Your task to perform on an android device: turn off location Image 0: 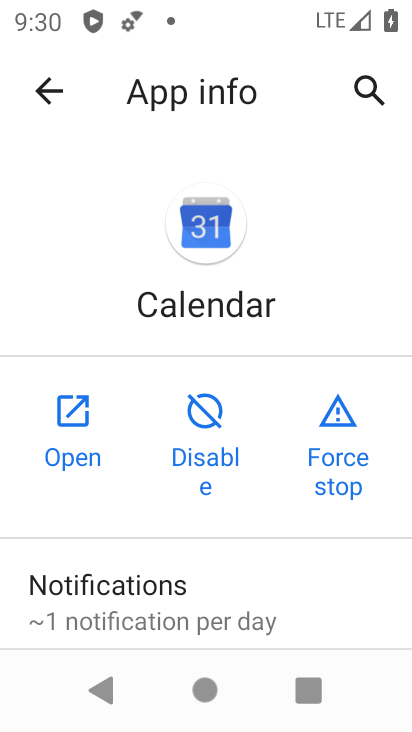
Step 0: click (341, 265)
Your task to perform on an android device: turn off location Image 1: 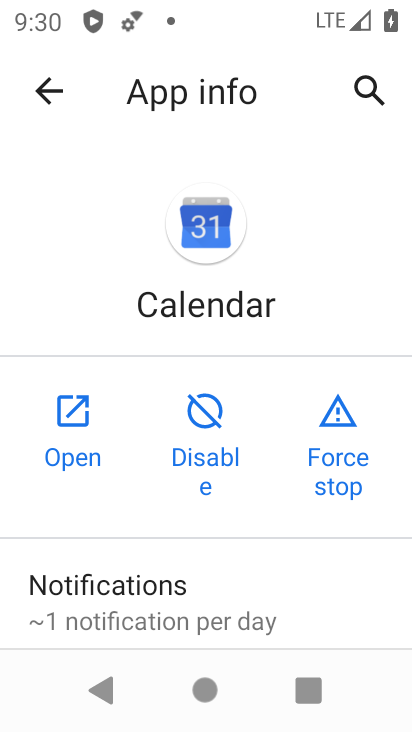
Step 1: press home button
Your task to perform on an android device: turn off location Image 2: 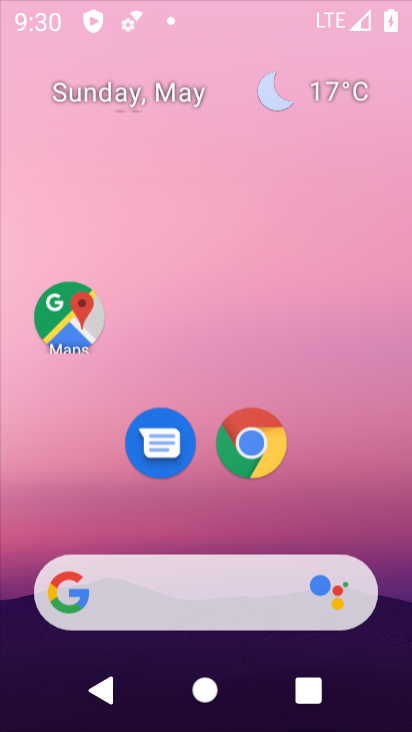
Step 2: drag from (200, 557) to (272, 85)
Your task to perform on an android device: turn off location Image 3: 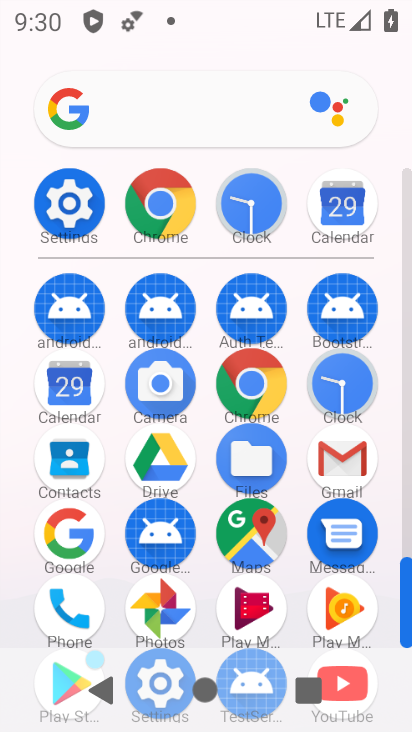
Step 3: click (82, 184)
Your task to perform on an android device: turn off location Image 4: 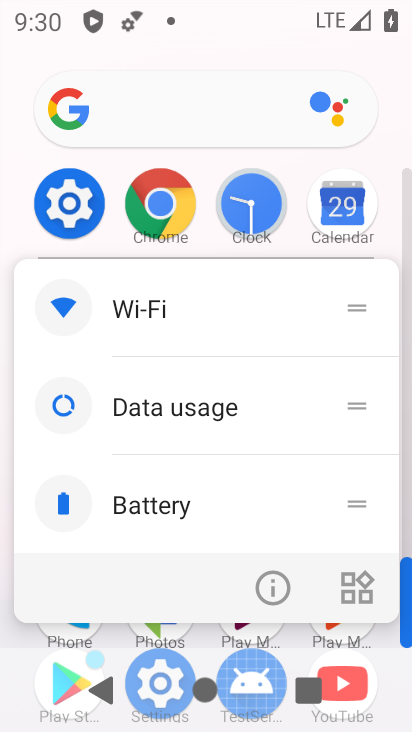
Step 4: click (278, 584)
Your task to perform on an android device: turn off location Image 5: 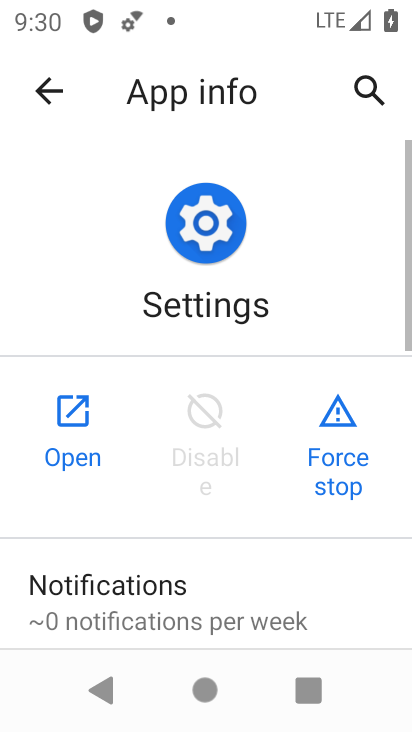
Step 5: click (70, 412)
Your task to perform on an android device: turn off location Image 6: 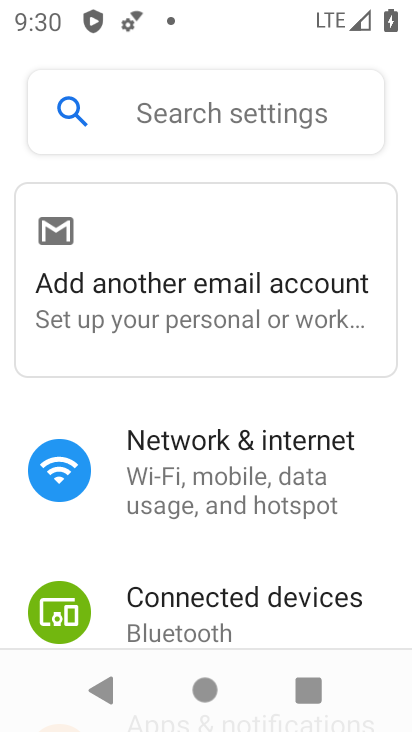
Step 6: drag from (217, 543) to (265, 196)
Your task to perform on an android device: turn off location Image 7: 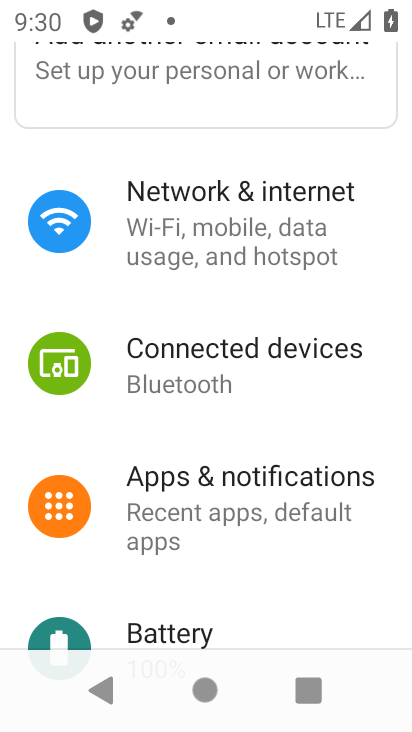
Step 7: drag from (211, 569) to (276, 162)
Your task to perform on an android device: turn off location Image 8: 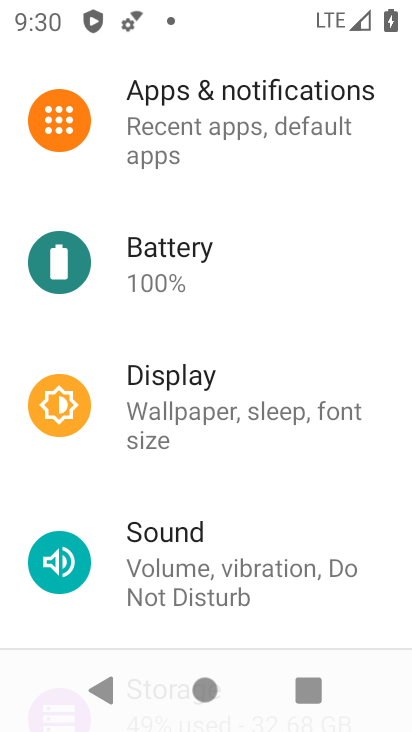
Step 8: drag from (251, 549) to (316, 65)
Your task to perform on an android device: turn off location Image 9: 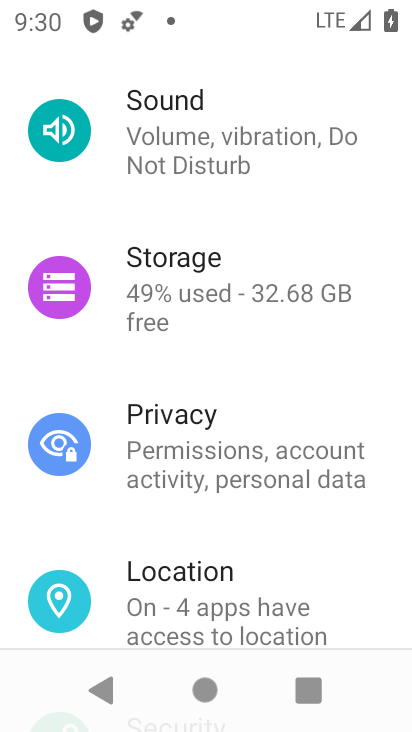
Step 9: click (226, 570)
Your task to perform on an android device: turn off location Image 10: 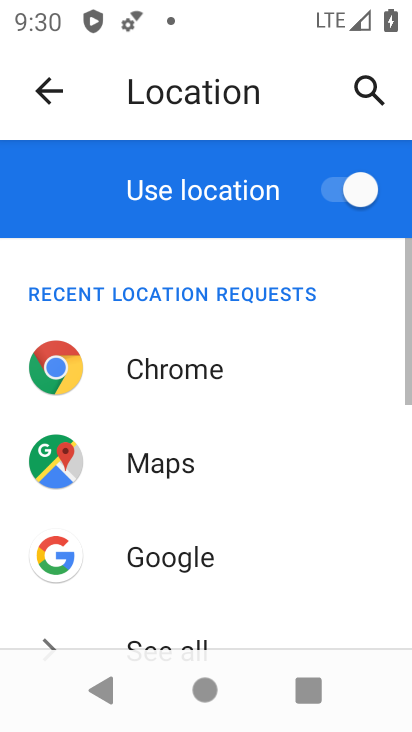
Step 10: drag from (197, 601) to (294, 169)
Your task to perform on an android device: turn off location Image 11: 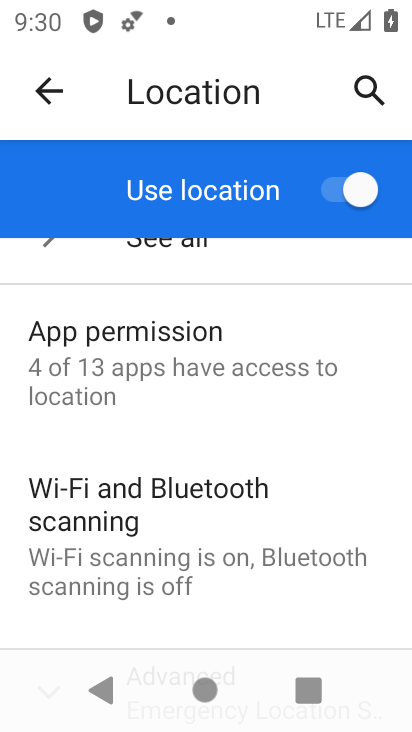
Step 11: click (350, 186)
Your task to perform on an android device: turn off location Image 12: 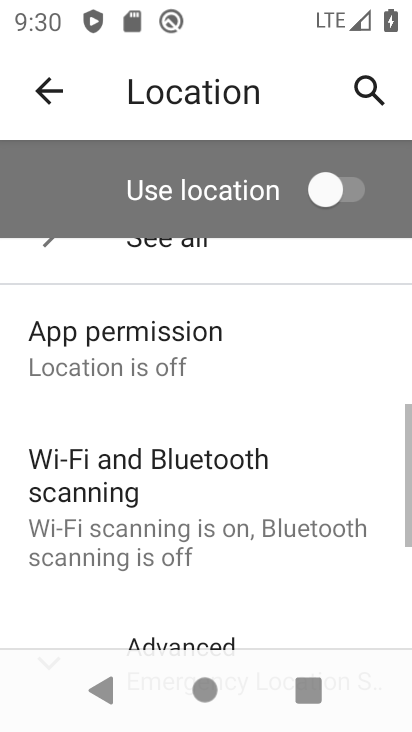
Step 12: task complete